Your task to perform on an android device: Open Youtube and go to the subscriptions tab Image 0: 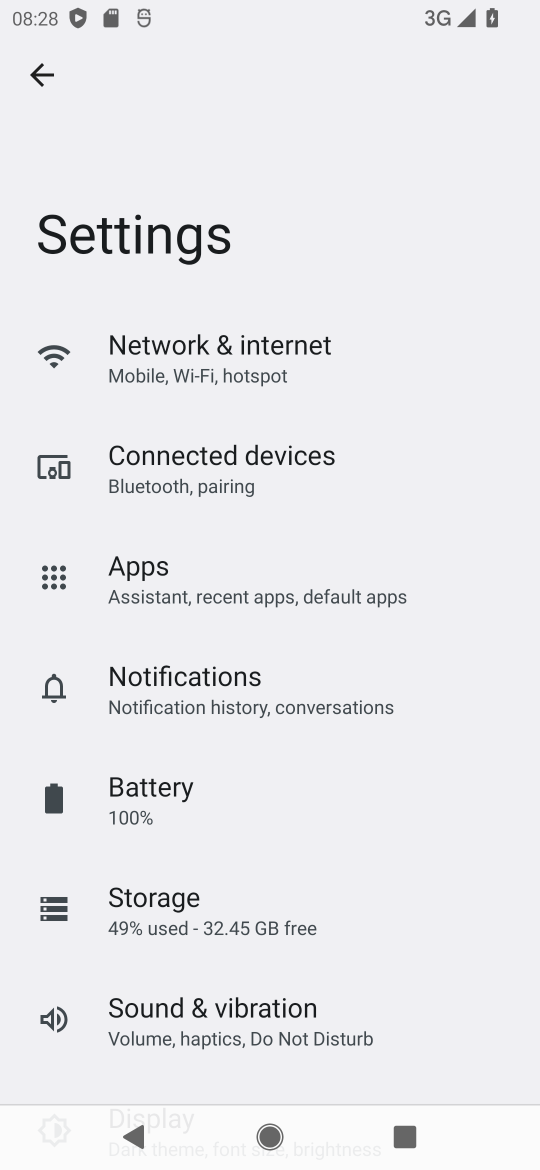
Step 0: press home button
Your task to perform on an android device: Open Youtube and go to the subscriptions tab Image 1: 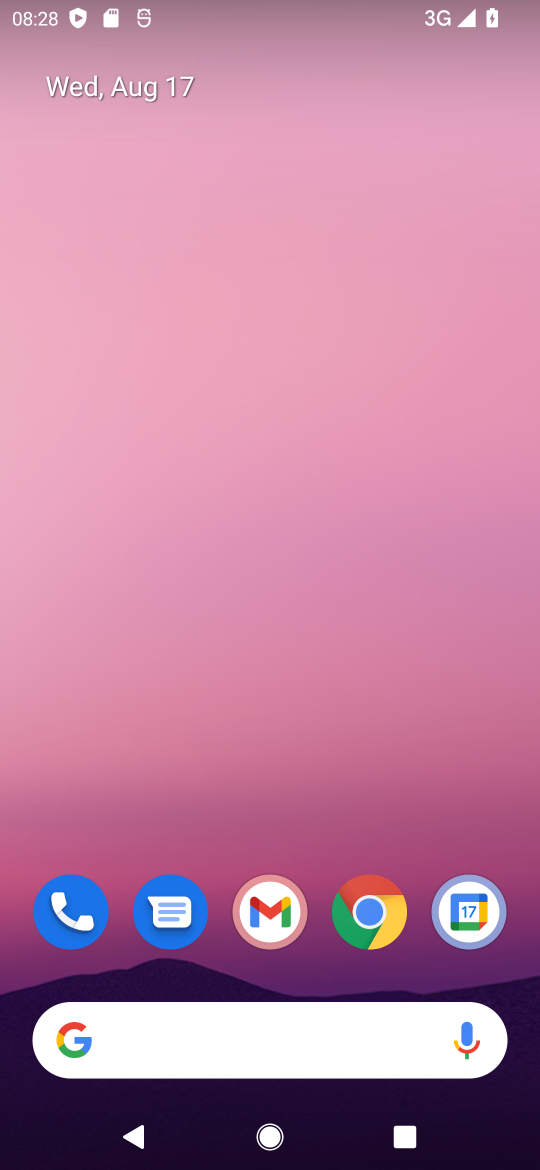
Step 1: drag from (175, 946) to (237, 76)
Your task to perform on an android device: Open Youtube and go to the subscriptions tab Image 2: 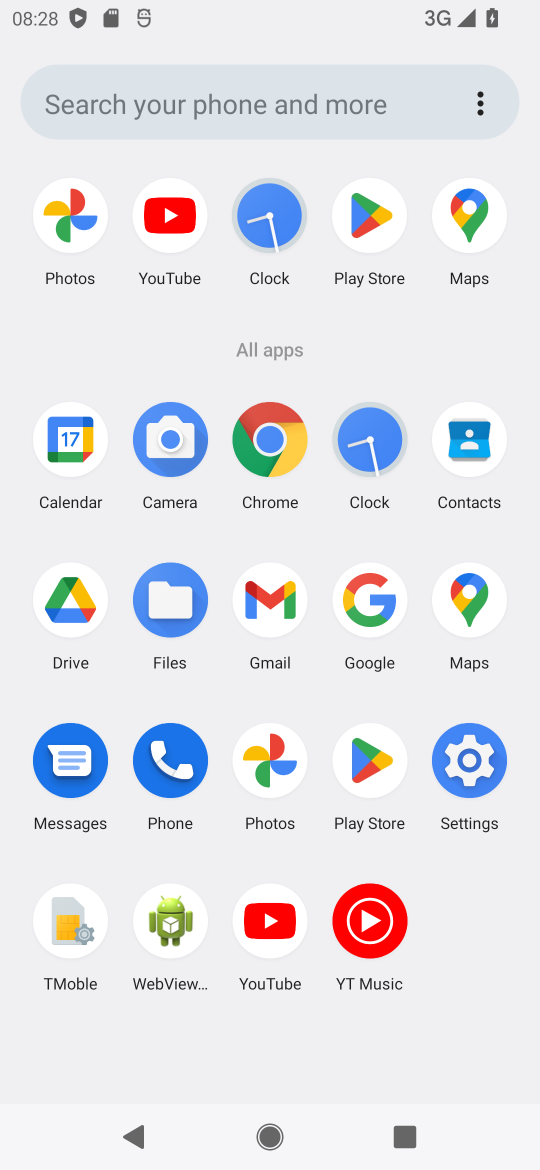
Step 2: click (269, 934)
Your task to perform on an android device: Open Youtube and go to the subscriptions tab Image 3: 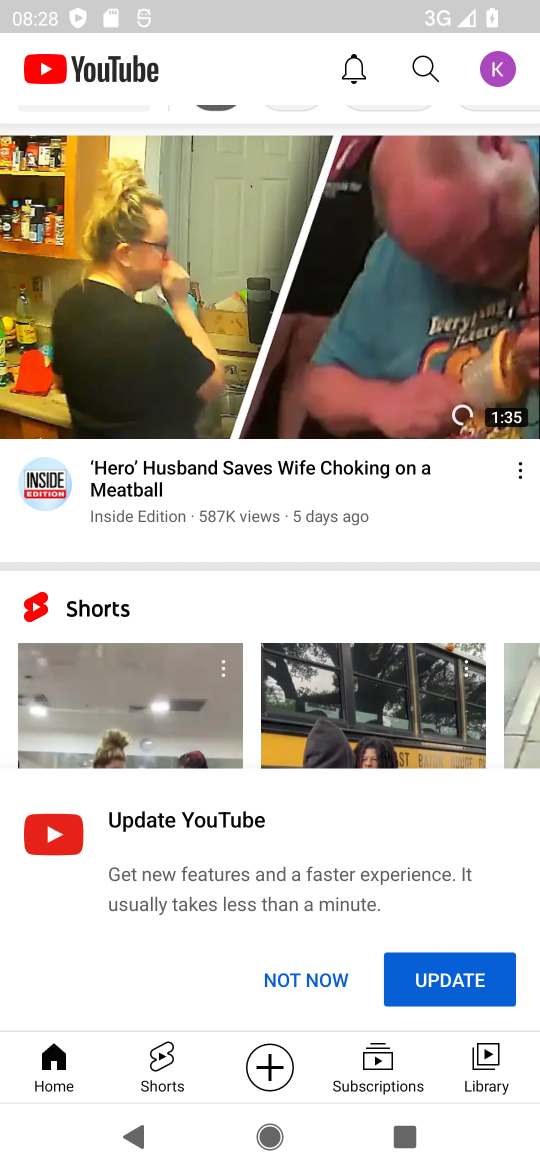
Step 3: click (377, 1063)
Your task to perform on an android device: Open Youtube and go to the subscriptions tab Image 4: 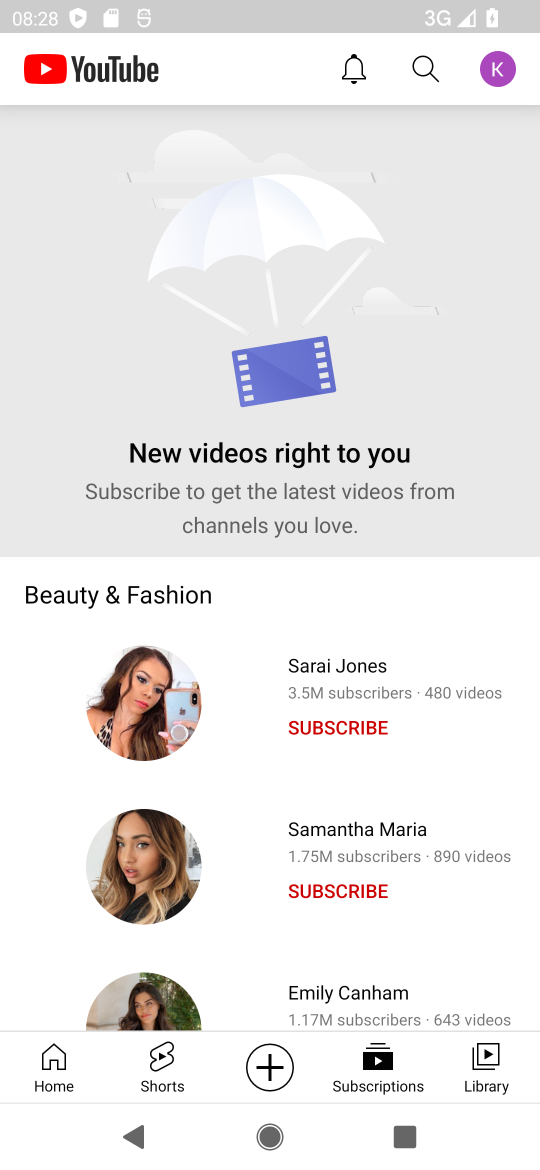
Step 4: task complete